Your task to perform on an android device: Go to privacy settings Image 0: 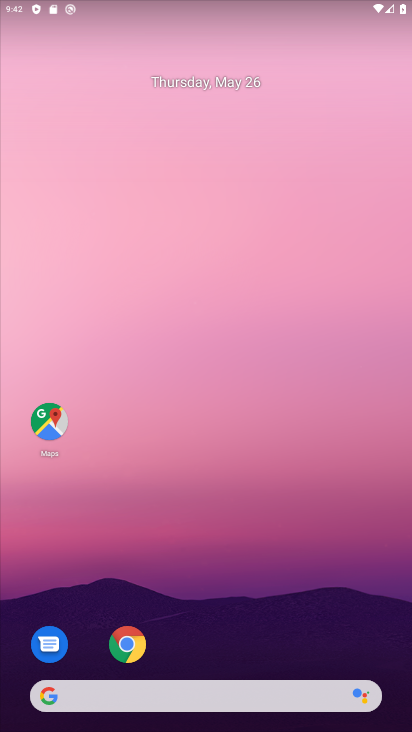
Step 0: drag from (251, 643) to (192, 190)
Your task to perform on an android device: Go to privacy settings Image 1: 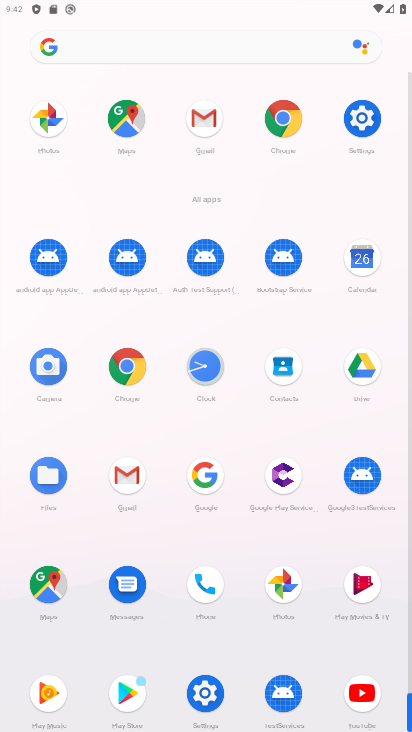
Step 1: click (355, 131)
Your task to perform on an android device: Go to privacy settings Image 2: 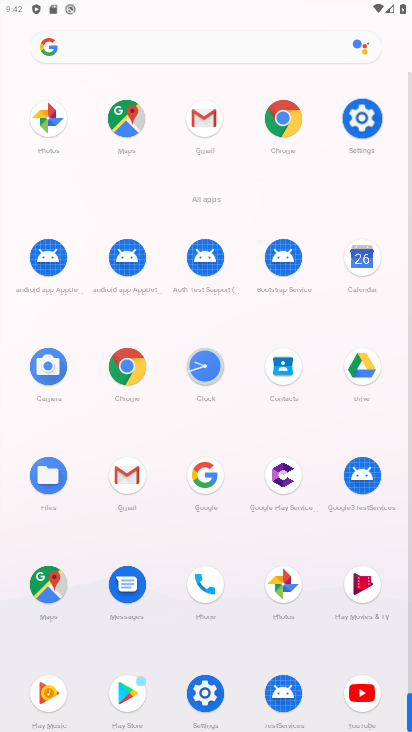
Step 2: click (357, 127)
Your task to perform on an android device: Go to privacy settings Image 3: 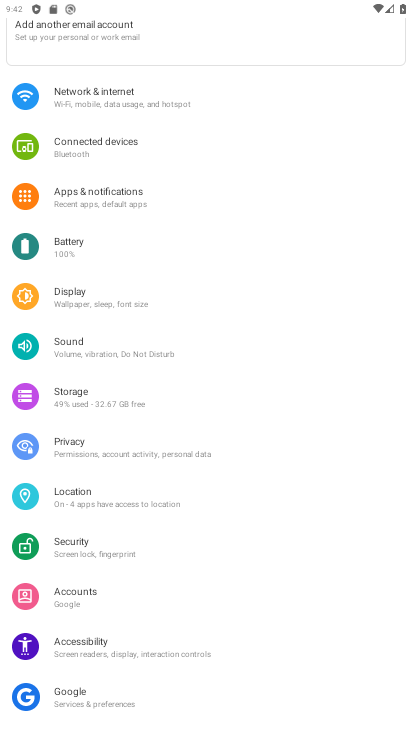
Step 3: click (359, 126)
Your task to perform on an android device: Go to privacy settings Image 4: 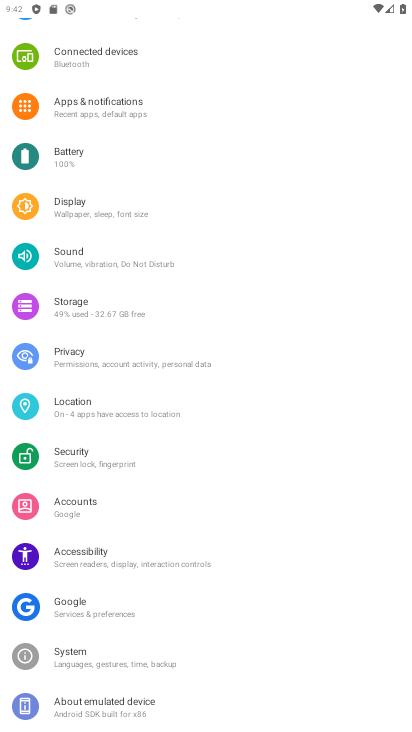
Step 4: click (67, 361)
Your task to perform on an android device: Go to privacy settings Image 5: 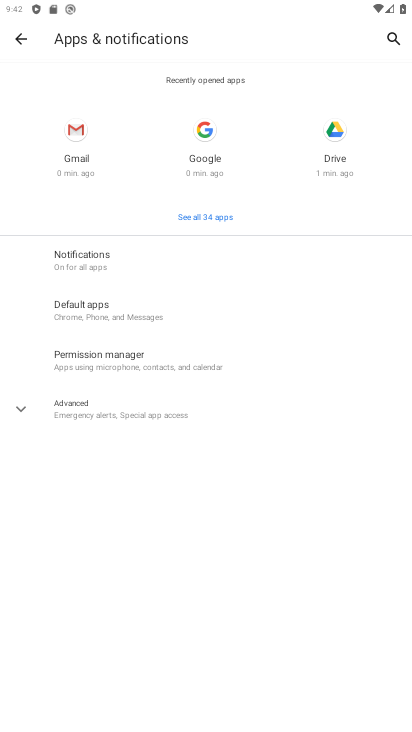
Step 5: click (13, 37)
Your task to perform on an android device: Go to privacy settings Image 6: 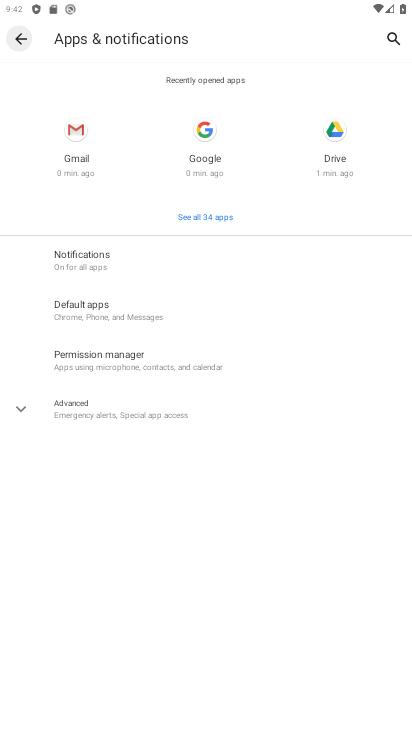
Step 6: click (13, 36)
Your task to perform on an android device: Go to privacy settings Image 7: 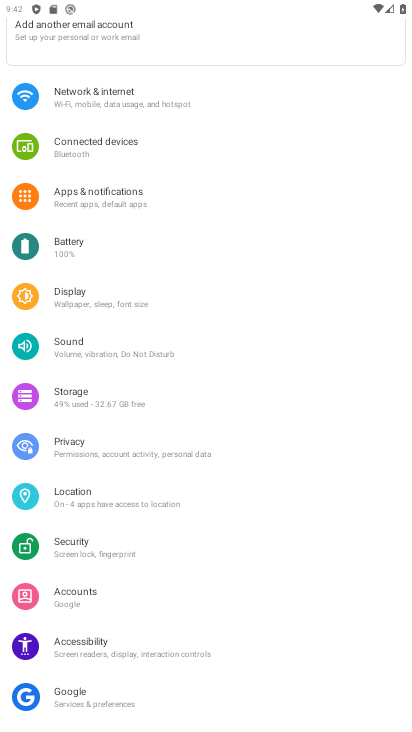
Step 7: click (87, 446)
Your task to perform on an android device: Go to privacy settings Image 8: 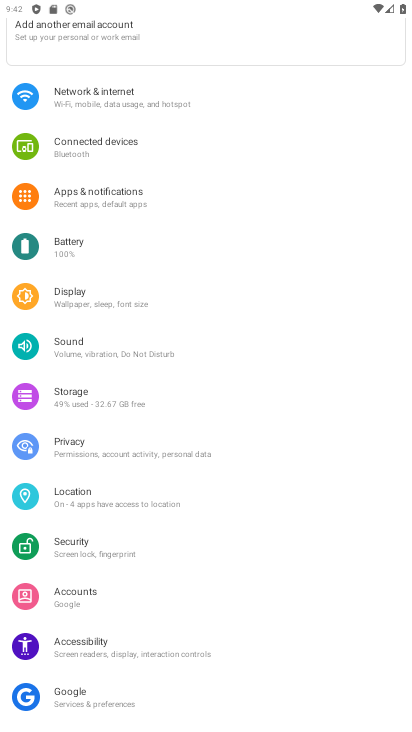
Step 8: click (99, 451)
Your task to perform on an android device: Go to privacy settings Image 9: 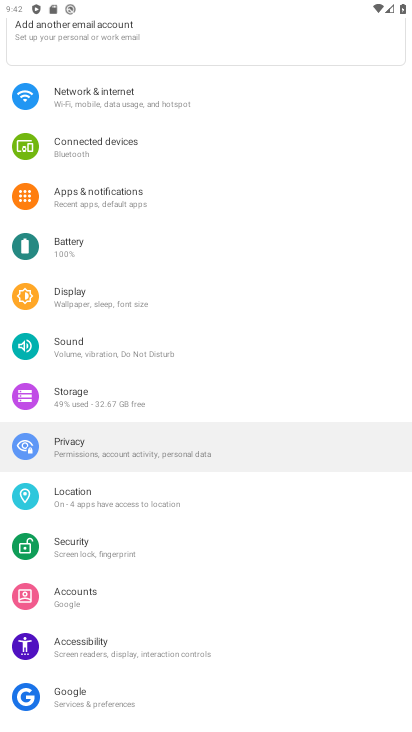
Step 9: click (100, 452)
Your task to perform on an android device: Go to privacy settings Image 10: 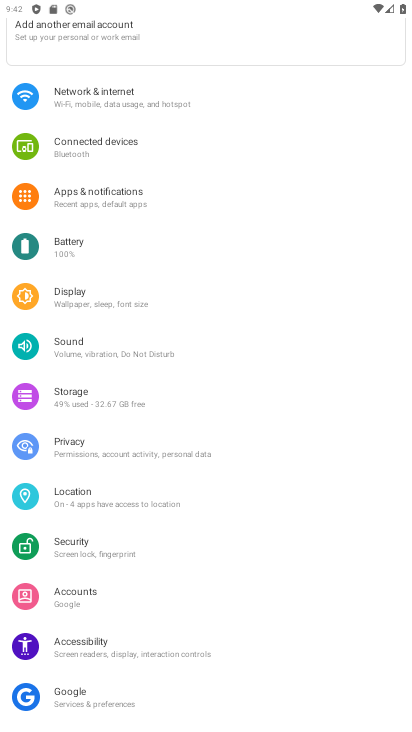
Step 10: click (102, 452)
Your task to perform on an android device: Go to privacy settings Image 11: 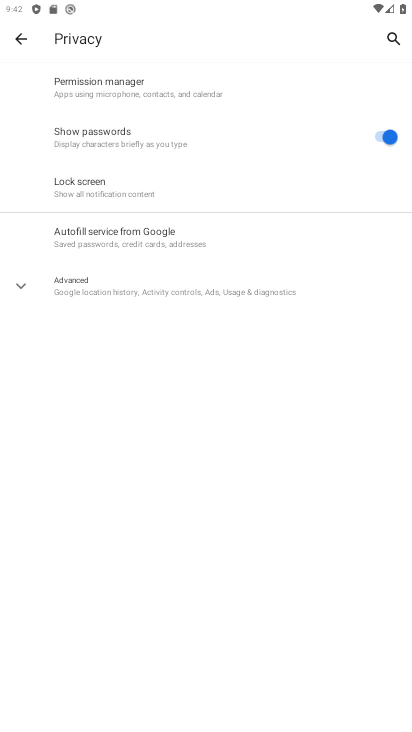
Step 11: task complete